Your task to perform on an android device: turn on location history Image 0: 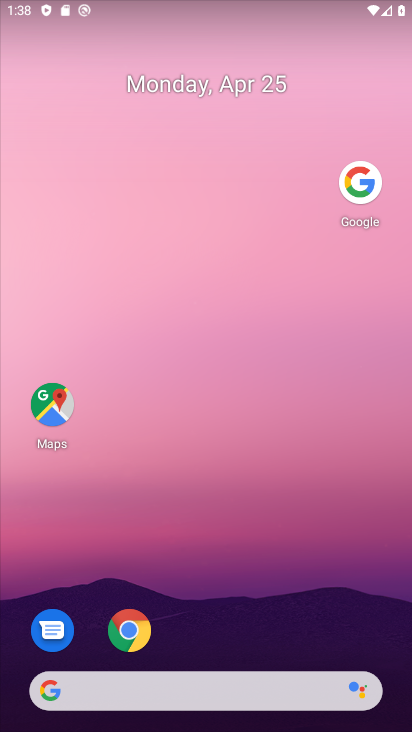
Step 0: drag from (200, 665) to (136, 5)
Your task to perform on an android device: turn on location history Image 1: 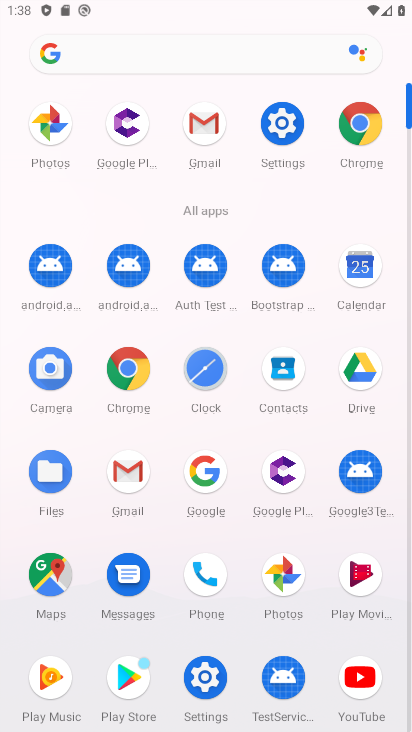
Step 1: click (272, 122)
Your task to perform on an android device: turn on location history Image 2: 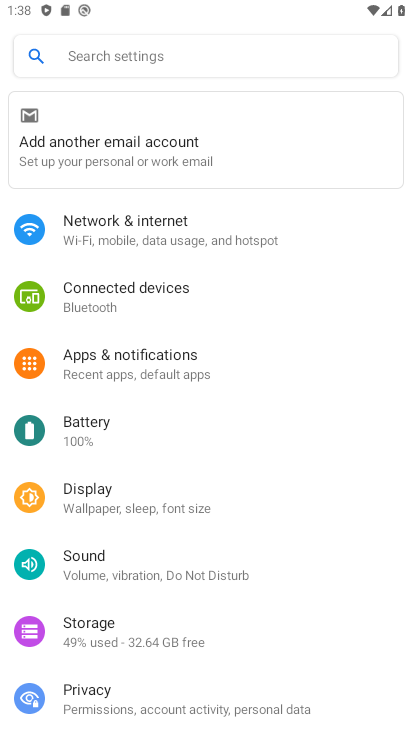
Step 2: drag from (121, 671) to (96, 226)
Your task to perform on an android device: turn on location history Image 3: 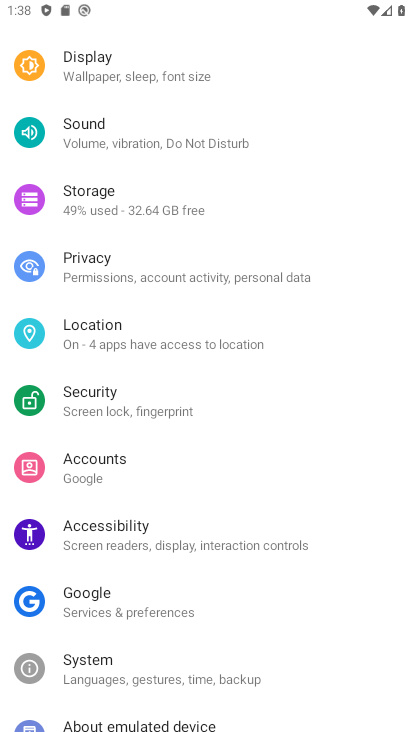
Step 3: click (86, 347)
Your task to perform on an android device: turn on location history Image 4: 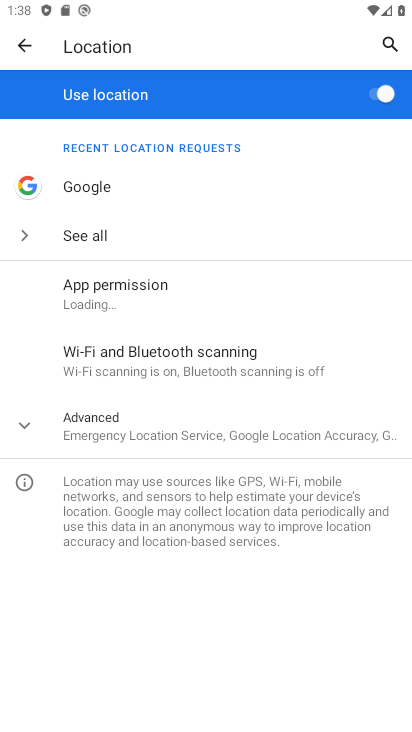
Step 4: click (140, 431)
Your task to perform on an android device: turn on location history Image 5: 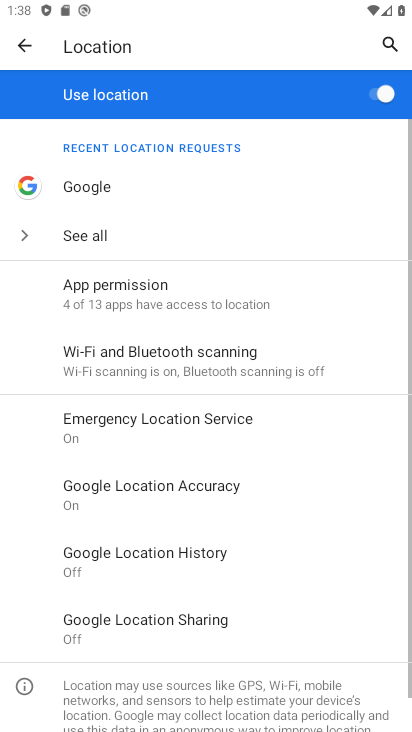
Step 5: click (189, 543)
Your task to perform on an android device: turn on location history Image 6: 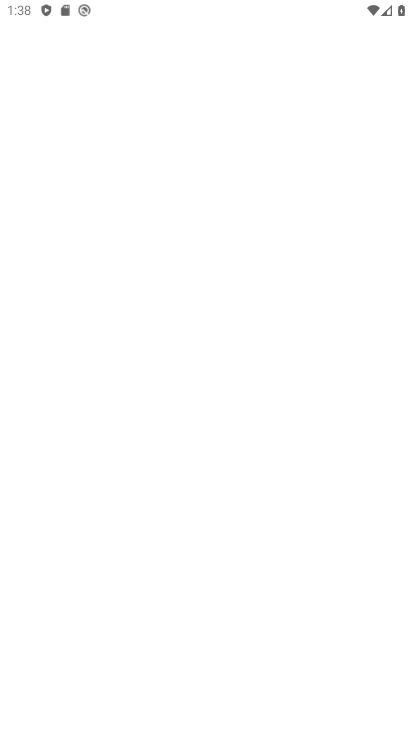
Step 6: drag from (213, 542) to (249, 225)
Your task to perform on an android device: turn on location history Image 7: 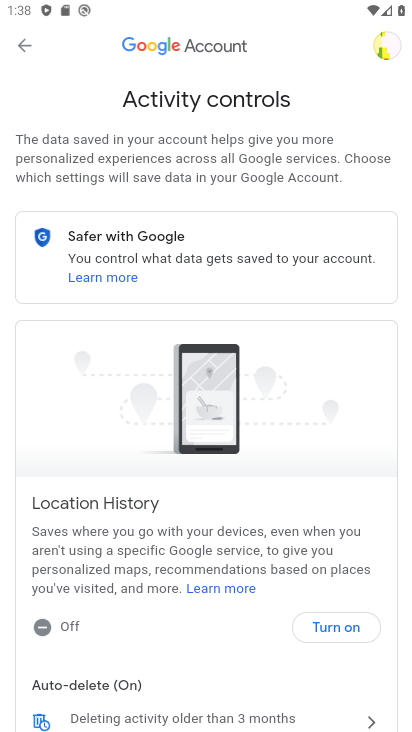
Step 7: click (338, 636)
Your task to perform on an android device: turn on location history Image 8: 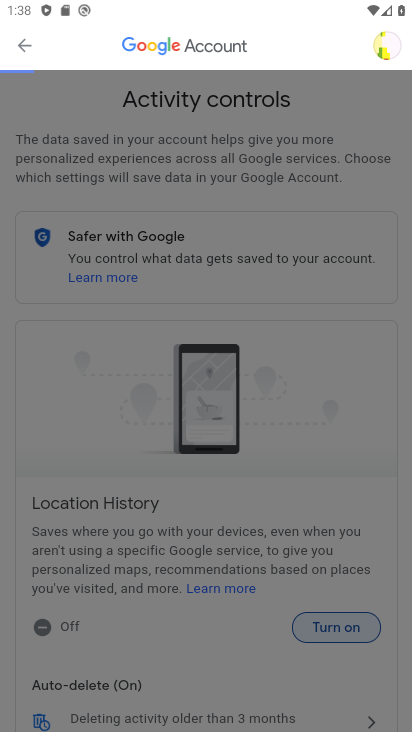
Step 8: click (340, 618)
Your task to perform on an android device: turn on location history Image 9: 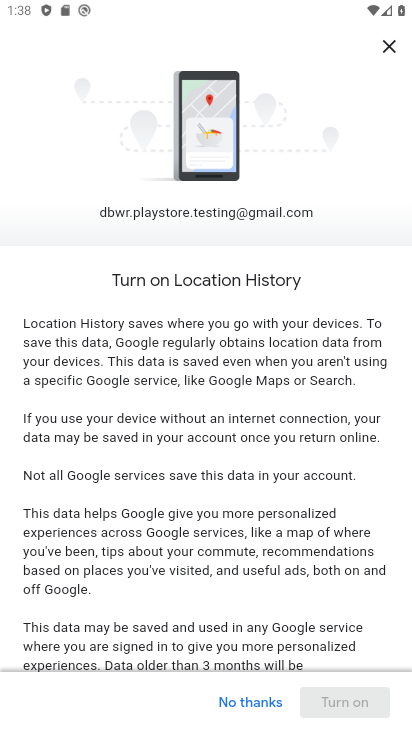
Step 9: drag from (332, 631) to (256, 19)
Your task to perform on an android device: turn on location history Image 10: 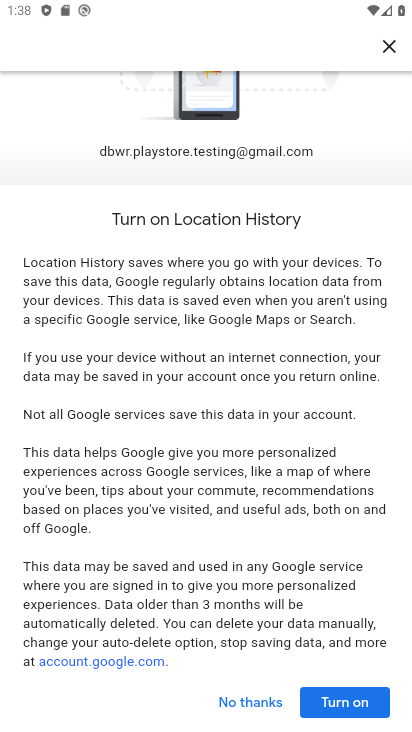
Step 10: click (350, 706)
Your task to perform on an android device: turn on location history Image 11: 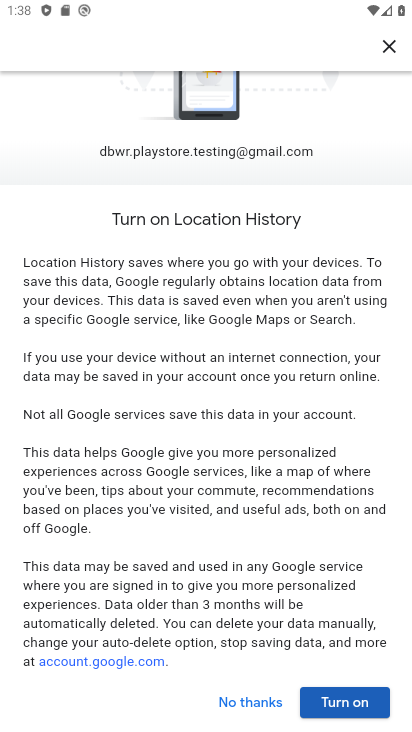
Step 11: click (352, 686)
Your task to perform on an android device: turn on location history Image 12: 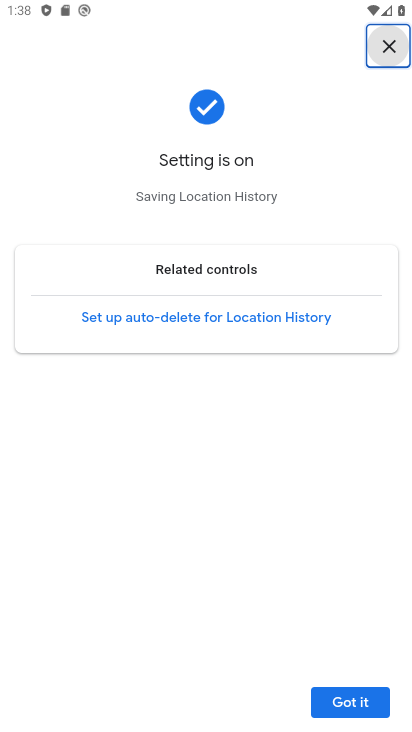
Step 12: click (347, 702)
Your task to perform on an android device: turn on location history Image 13: 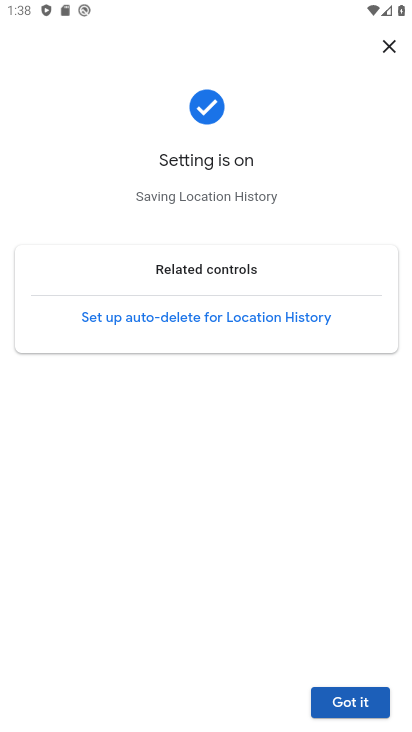
Step 13: click (369, 690)
Your task to perform on an android device: turn on location history Image 14: 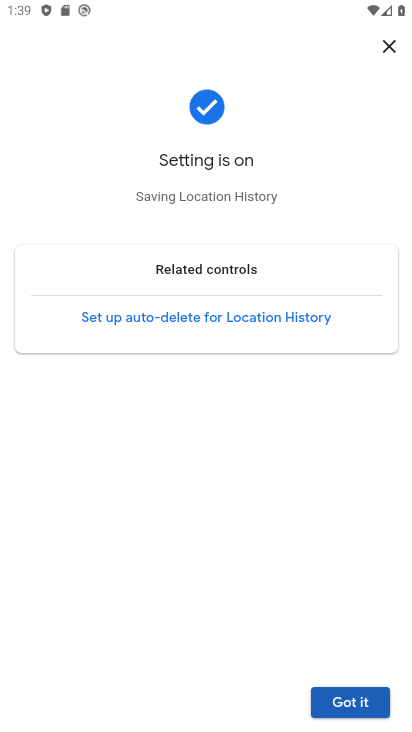
Step 14: task complete